Your task to perform on an android device: Clear the cart on walmart.com. Search for dell xps on walmart.com, select the first entry, add it to the cart, then select checkout. Image 0: 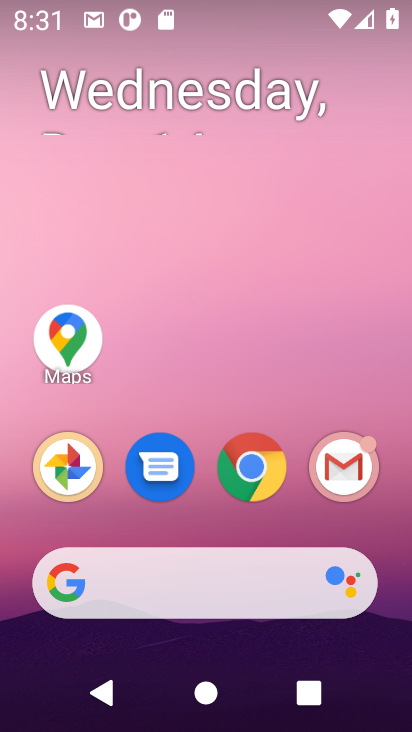
Step 0: click (235, 483)
Your task to perform on an android device: Clear the cart on walmart.com. Search for dell xps on walmart.com, select the first entry, add it to the cart, then select checkout. Image 1: 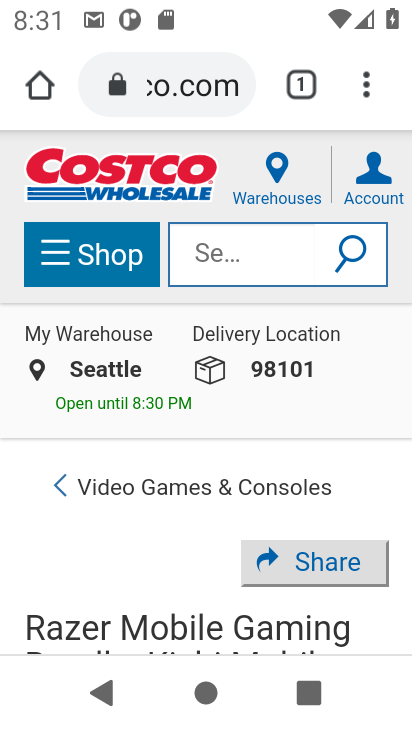
Step 1: click (198, 95)
Your task to perform on an android device: Clear the cart on walmart.com. Search for dell xps on walmart.com, select the first entry, add it to the cart, then select checkout. Image 2: 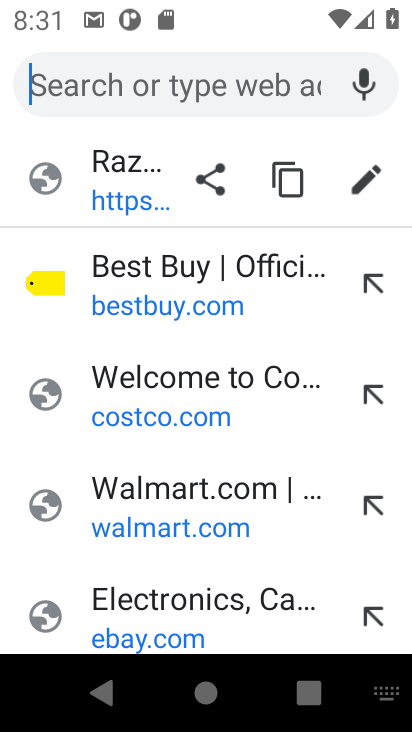
Step 2: click (186, 517)
Your task to perform on an android device: Clear the cart on walmart.com. Search for dell xps on walmart.com, select the first entry, add it to the cart, then select checkout. Image 3: 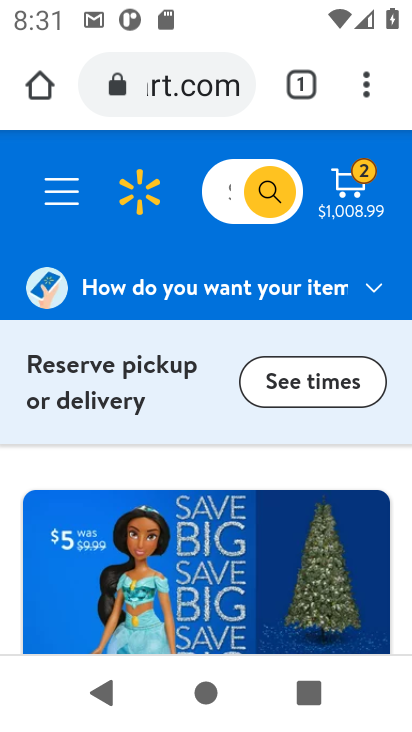
Step 3: click (229, 192)
Your task to perform on an android device: Clear the cart on walmart.com. Search for dell xps on walmart.com, select the first entry, add it to the cart, then select checkout. Image 4: 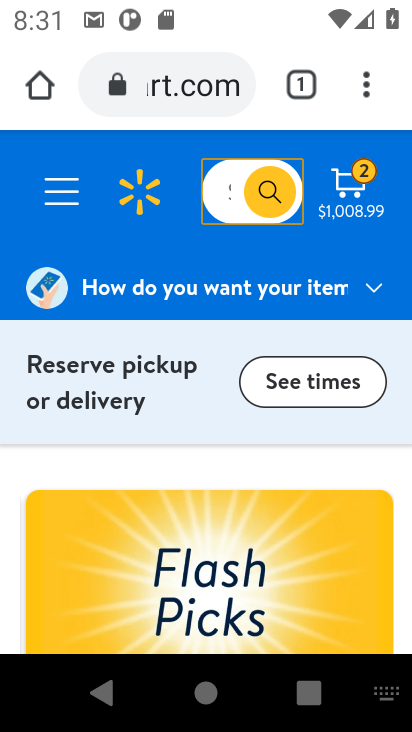
Step 4: type "dell xps"
Your task to perform on an android device: Clear the cart on walmart.com. Search for dell xps on walmart.com, select the first entry, add it to the cart, then select checkout. Image 5: 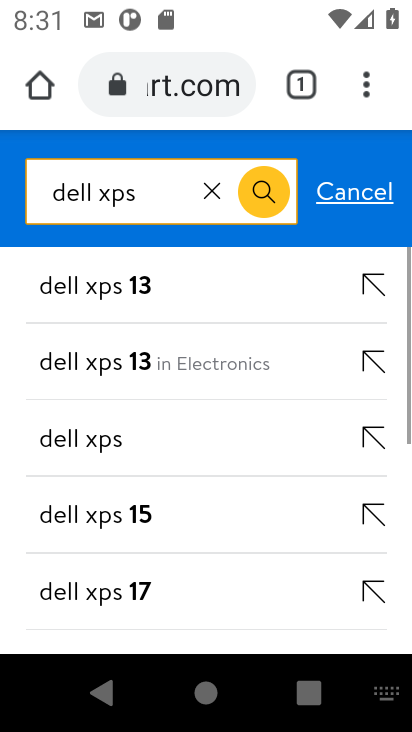
Step 5: click (62, 462)
Your task to perform on an android device: Clear the cart on walmart.com. Search for dell xps on walmart.com, select the first entry, add it to the cart, then select checkout. Image 6: 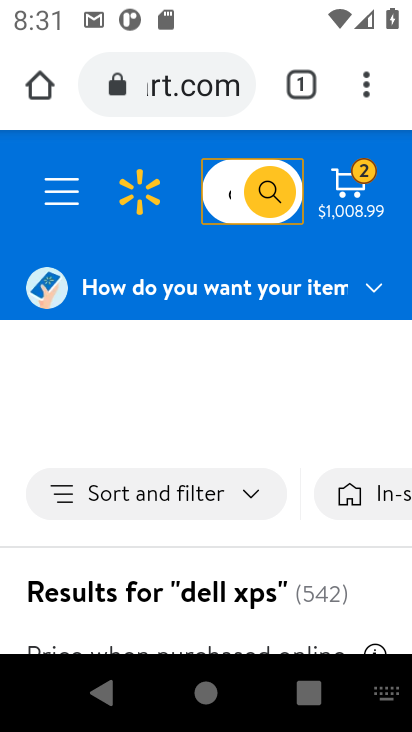
Step 6: drag from (240, 573) to (287, 228)
Your task to perform on an android device: Clear the cart on walmart.com. Search for dell xps on walmart.com, select the first entry, add it to the cart, then select checkout. Image 7: 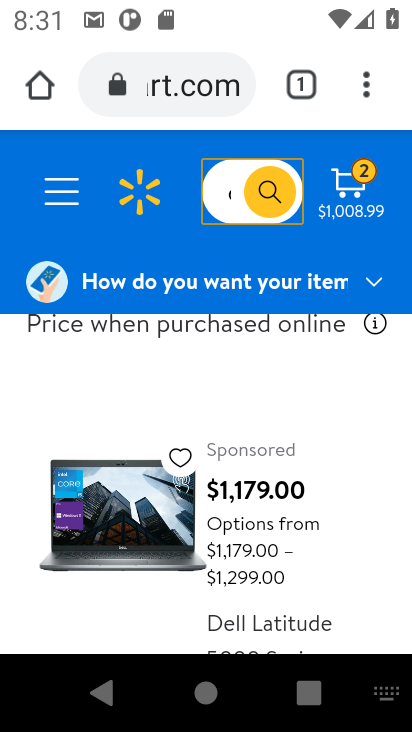
Step 7: click (248, 543)
Your task to perform on an android device: Clear the cart on walmart.com. Search for dell xps on walmart.com, select the first entry, add it to the cart, then select checkout. Image 8: 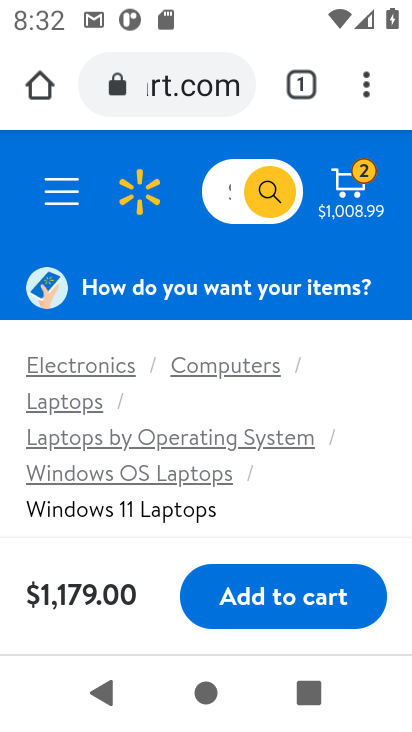
Step 8: click (243, 571)
Your task to perform on an android device: Clear the cart on walmart.com. Search for dell xps on walmart.com, select the first entry, add it to the cart, then select checkout. Image 9: 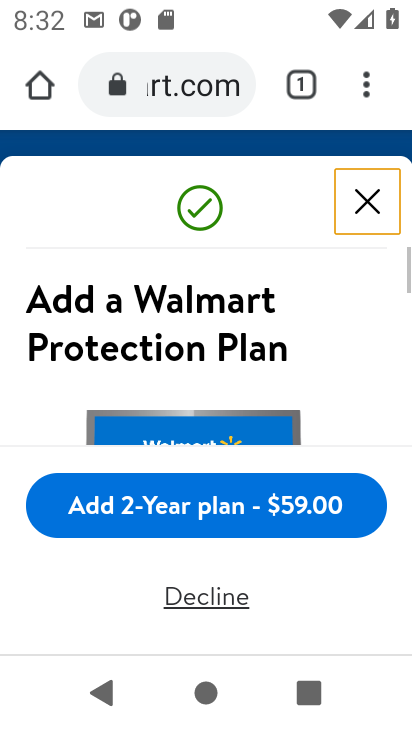
Step 9: task complete